Your task to perform on an android device: turn off improve location accuracy Image 0: 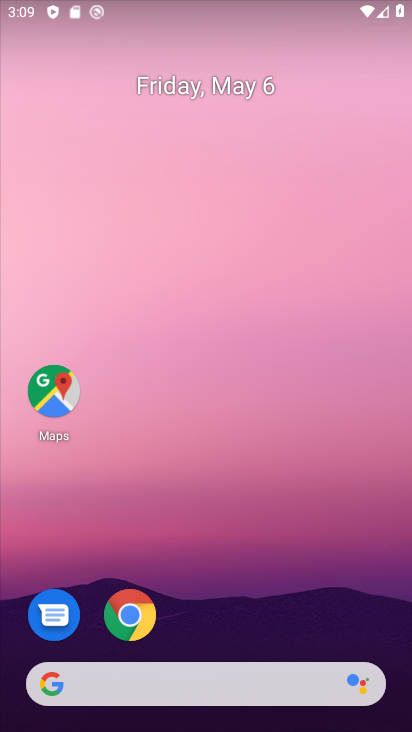
Step 0: drag from (264, 595) to (254, 1)
Your task to perform on an android device: turn off improve location accuracy Image 1: 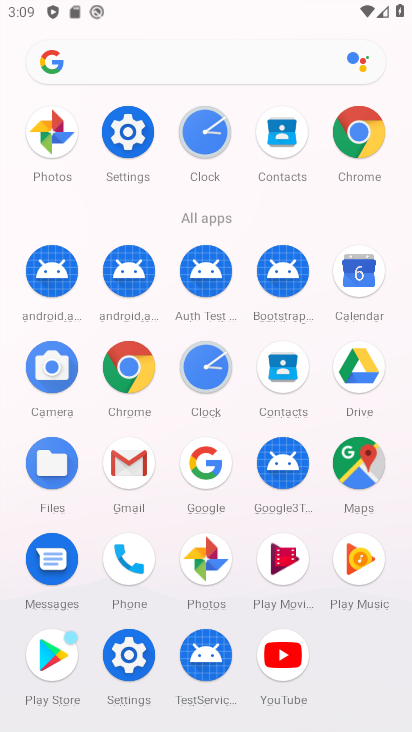
Step 1: click (132, 134)
Your task to perform on an android device: turn off improve location accuracy Image 2: 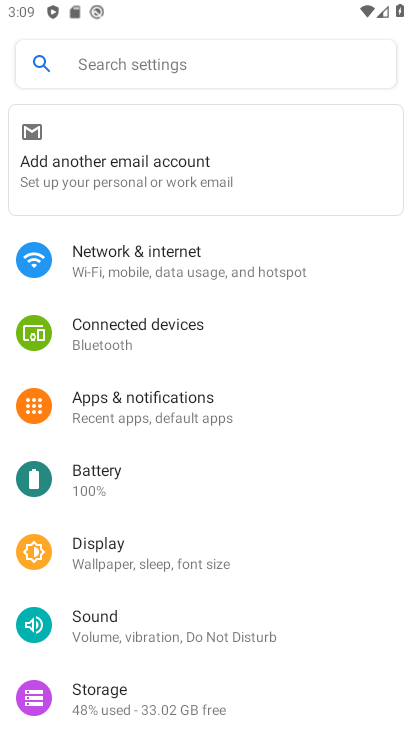
Step 2: drag from (266, 633) to (261, 211)
Your task to perform on an android device: turn off improve location accuracy Image 3: 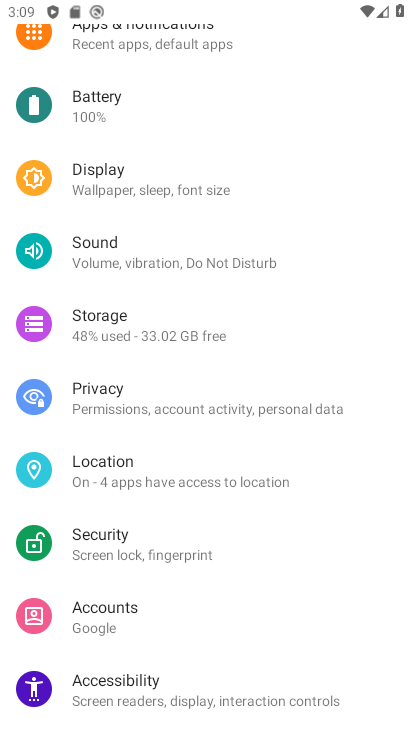
Step 3: click (100, 464)
Your task to perform on an android device: turn off improve location accuracy Image 4: 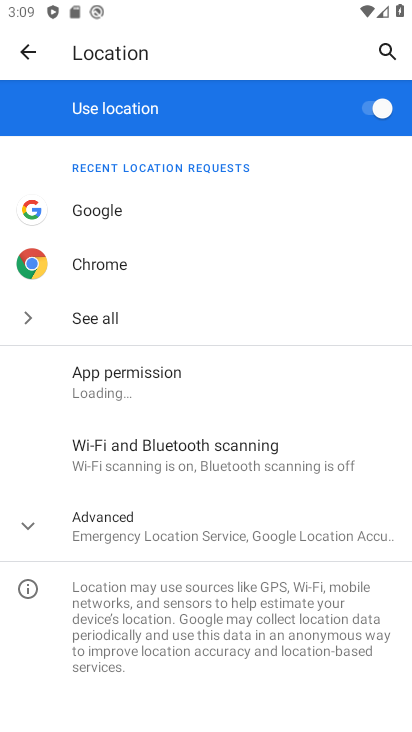
Step 4: click (36, 532)
Your task to perform on an android device: turn off improve location accuracy Image 5: 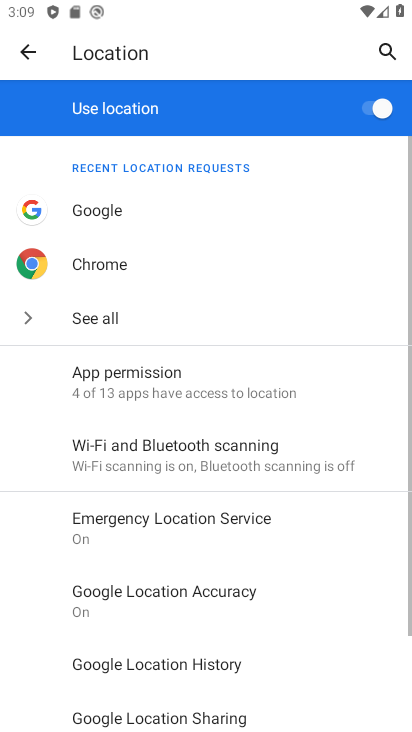
Step 5: drag from (208, 563) to (192, 359)
Your task to perform on an android device: turn off improve location accuracy Image 6: 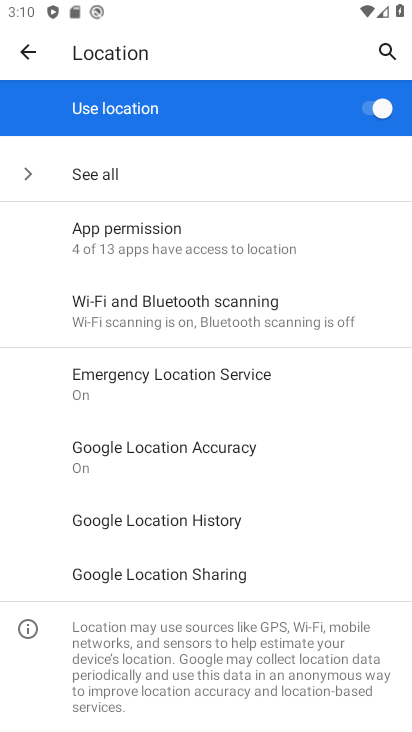
Step 6: click (128, 447)
Your task to perform on an android device: turn off improve location accuracy Image 7: 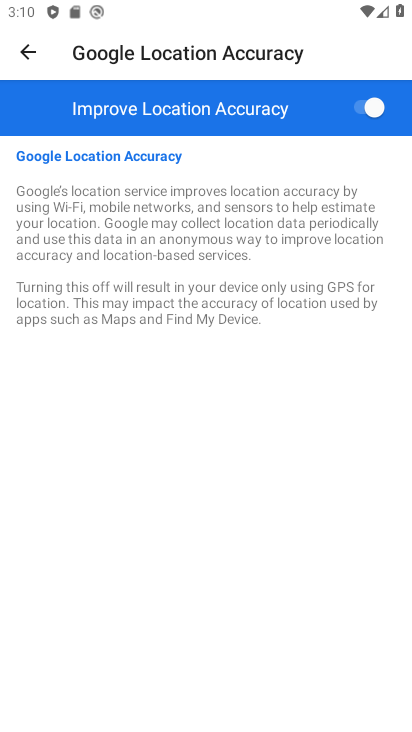
Step 7: click (379, 110)
Your task to perform on an android device: turn off improve location accuracy Image 8: 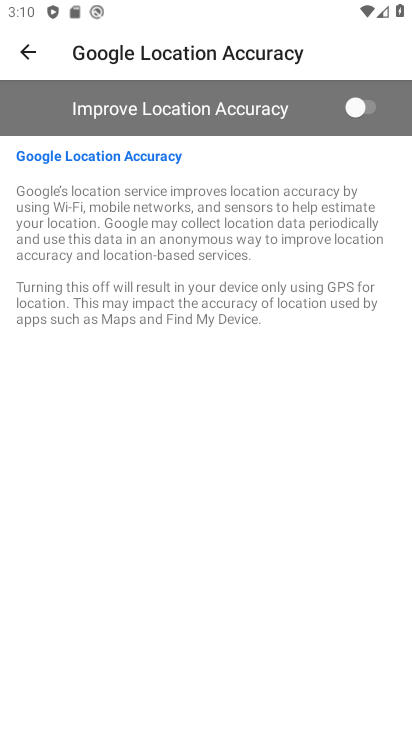
Step 8: task complete